Your task to perform on an android device: delete location history Image 0: 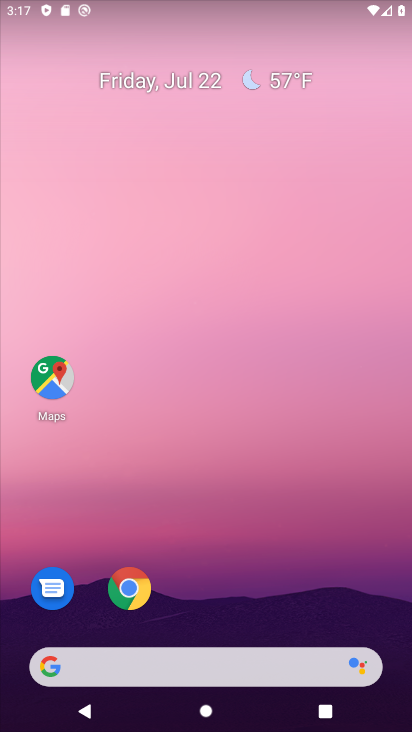
Step 0: drag from (172, 615) to (172, 14)
Your task to perform on an android device: delete location history Image 1: 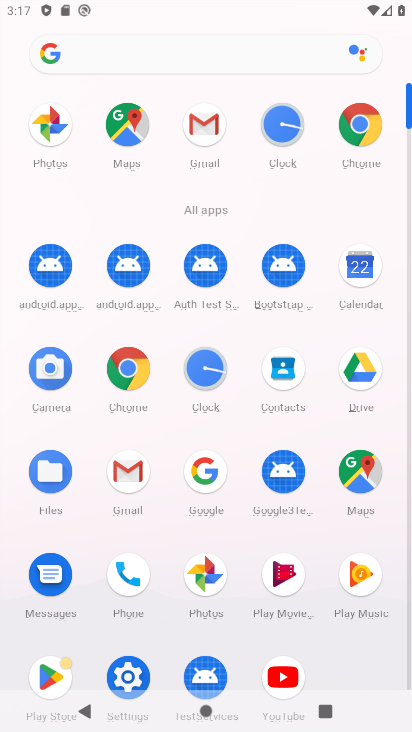
Step 1: click (137, 678)
Your task to perform on an android device: delete location history Image 2: 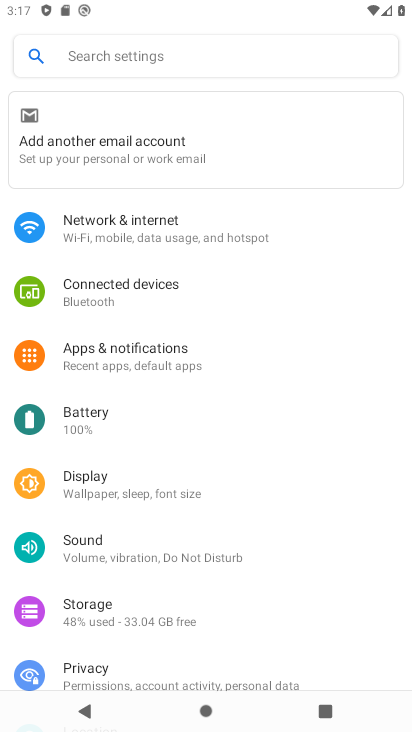
Step 2: drag from (129, 549) to (130, 97)
Your task to perform on an android device: delete location history Image 3: 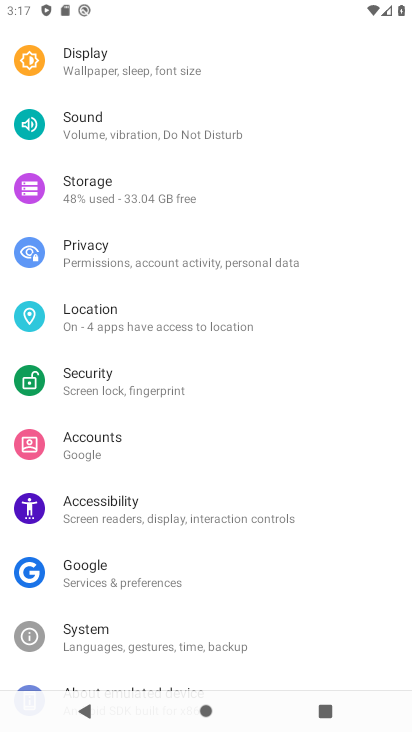
Step 3: click (101, 317)
Your task to perform on an android device: delete location history Image 4: 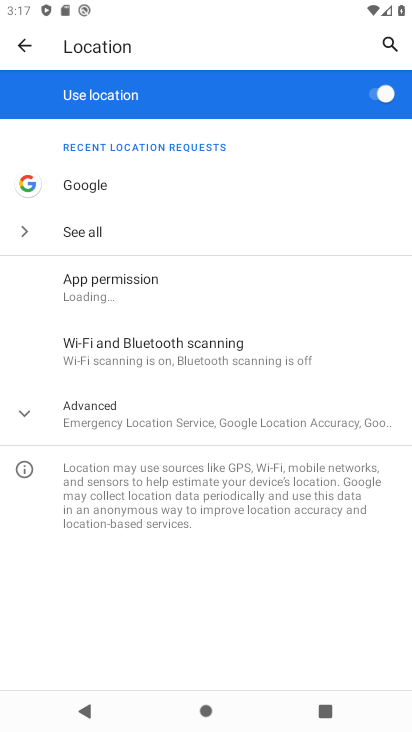
Step 4: click (123, 418)
Your task to perform on an android device: delete location history Image 5: 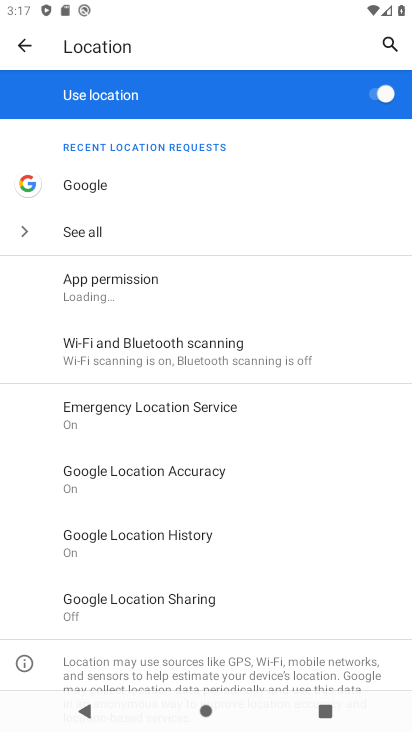
Step 5: click (153, 545)
Your task to perform on an android device: delete location history Image 6: 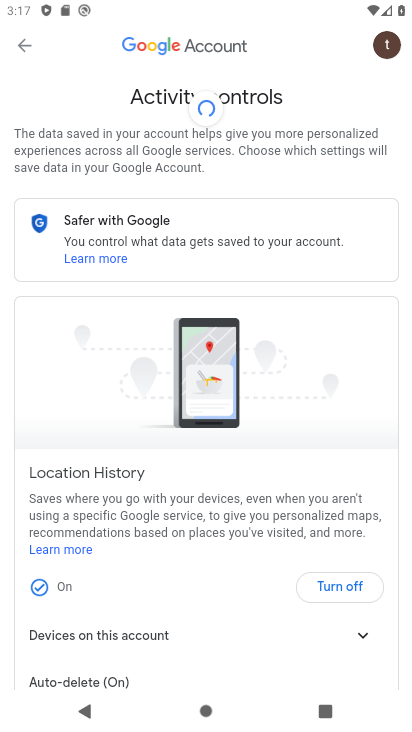
Step 6: task complete